Your task to perform on an android device: uninstall "Google Calendar" Image 0: 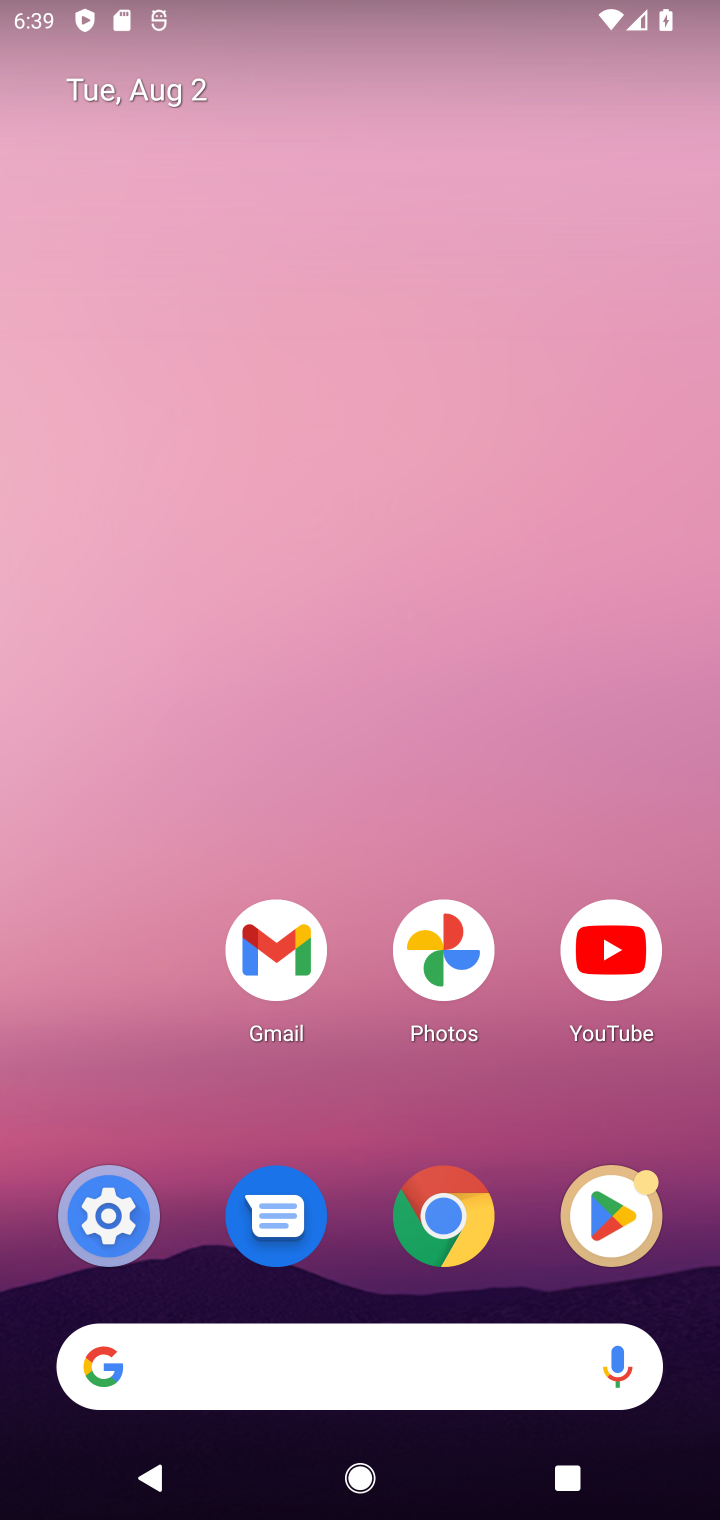
Step 0: drag from (403, 1363) to (710, 49)
Your task to perform on an android device: uninstall "Google Calendar" Image 1: 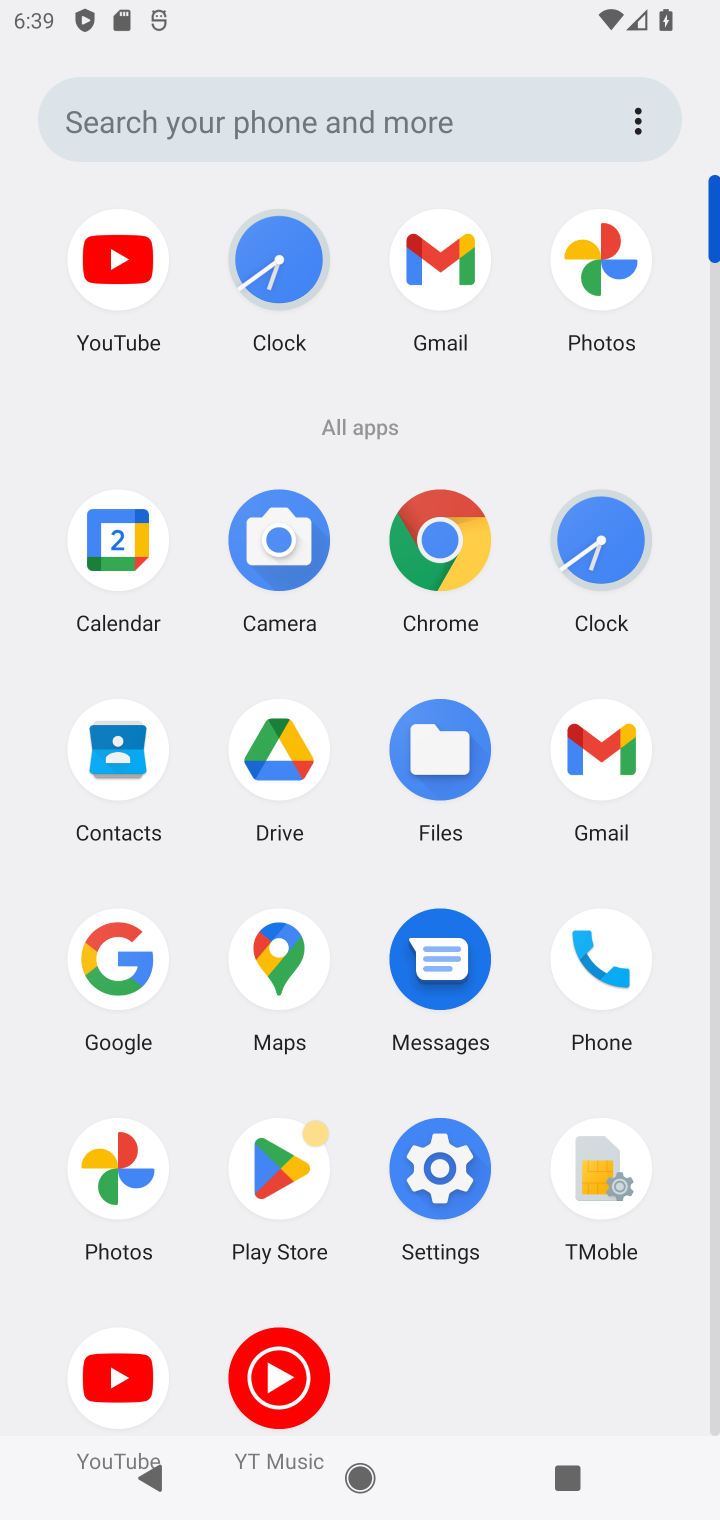
Step 1: click (283, 1163)
Your task to perform on an android device: uninstall "Google Calendar" Image 2: 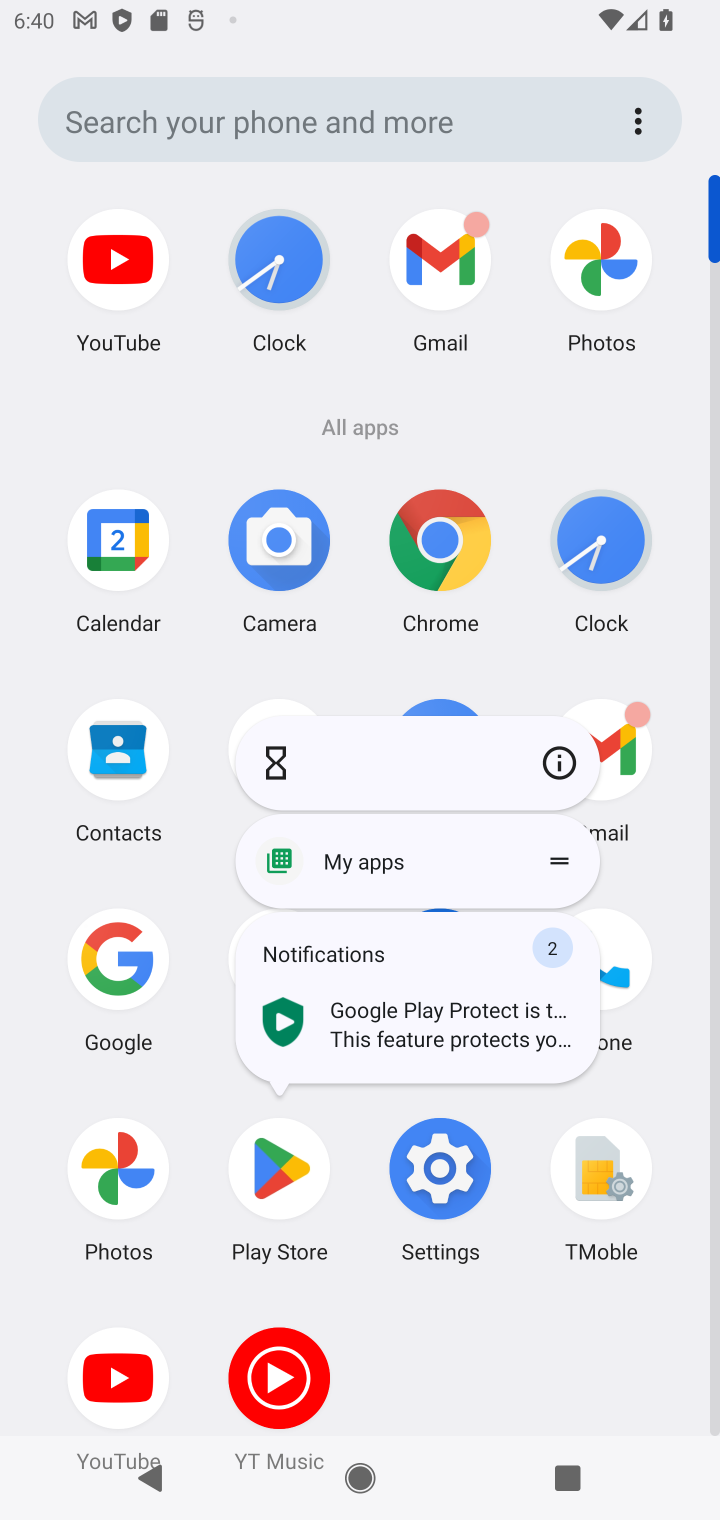
Step 2: click (276, 1180)
Your task to perform on an android device: uninstall "Google Calendar" Image 3: 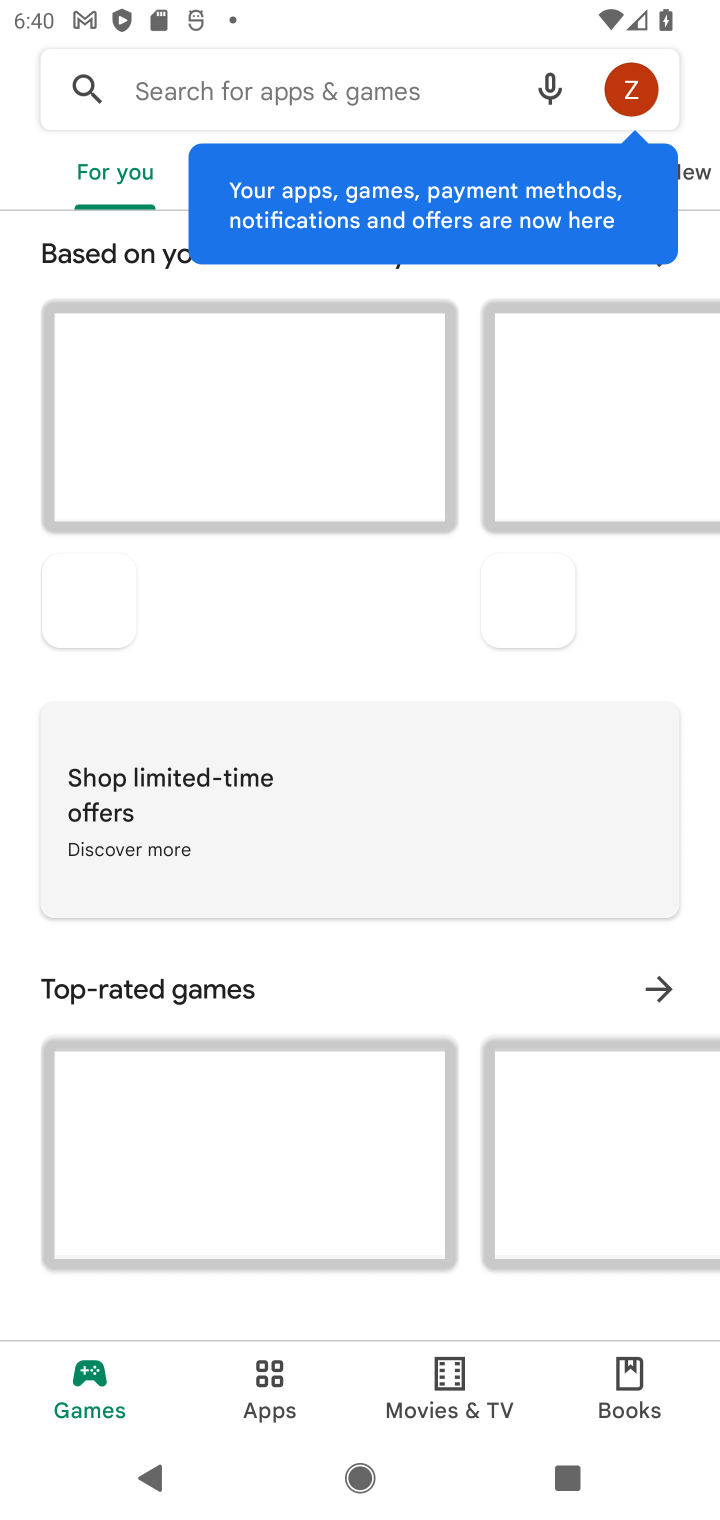
Step 3: click (467, 98)
Your task to perform on an android device: uninstall "Google Calendar" Image 4: 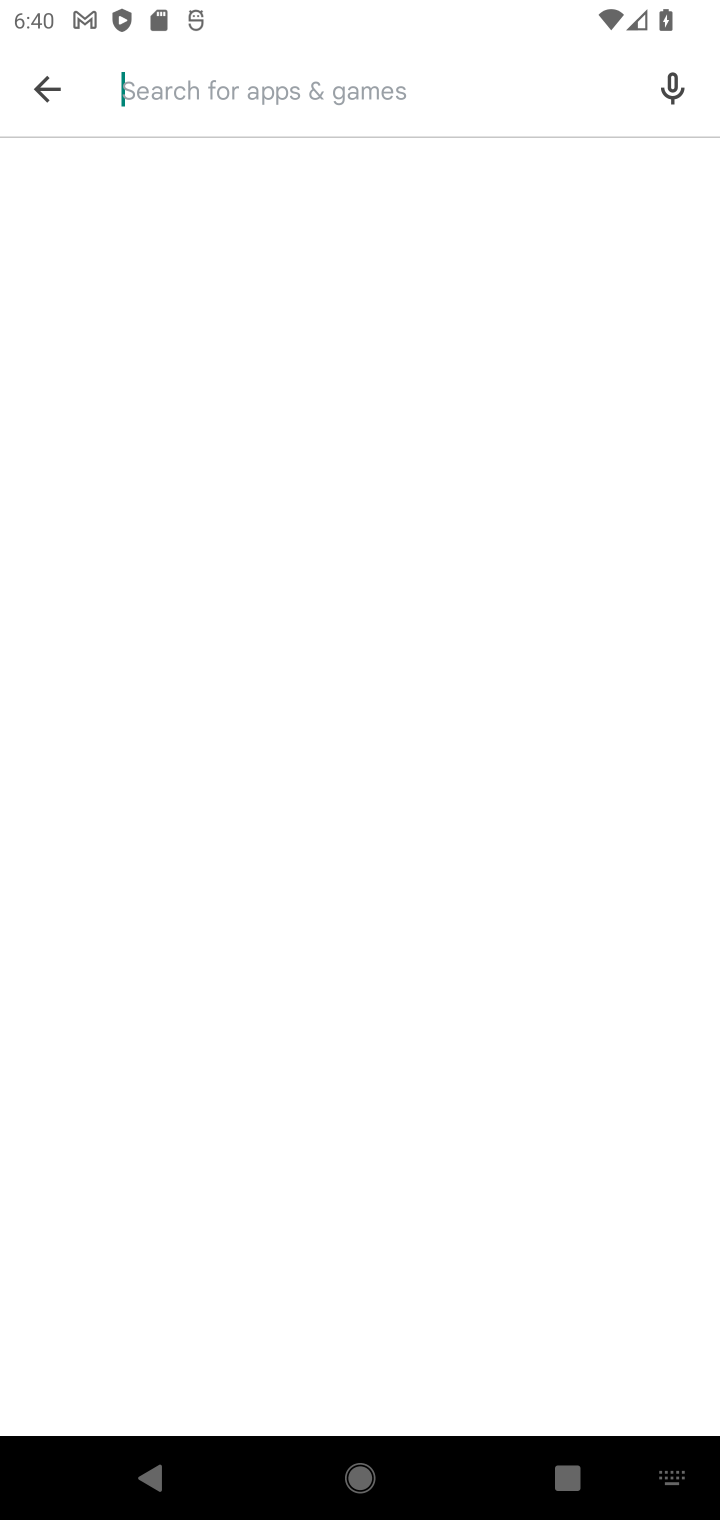
Step 4: type "Google Calendar"
Your task to perform on an android device: uninstall "Google Calendar" Image 5: 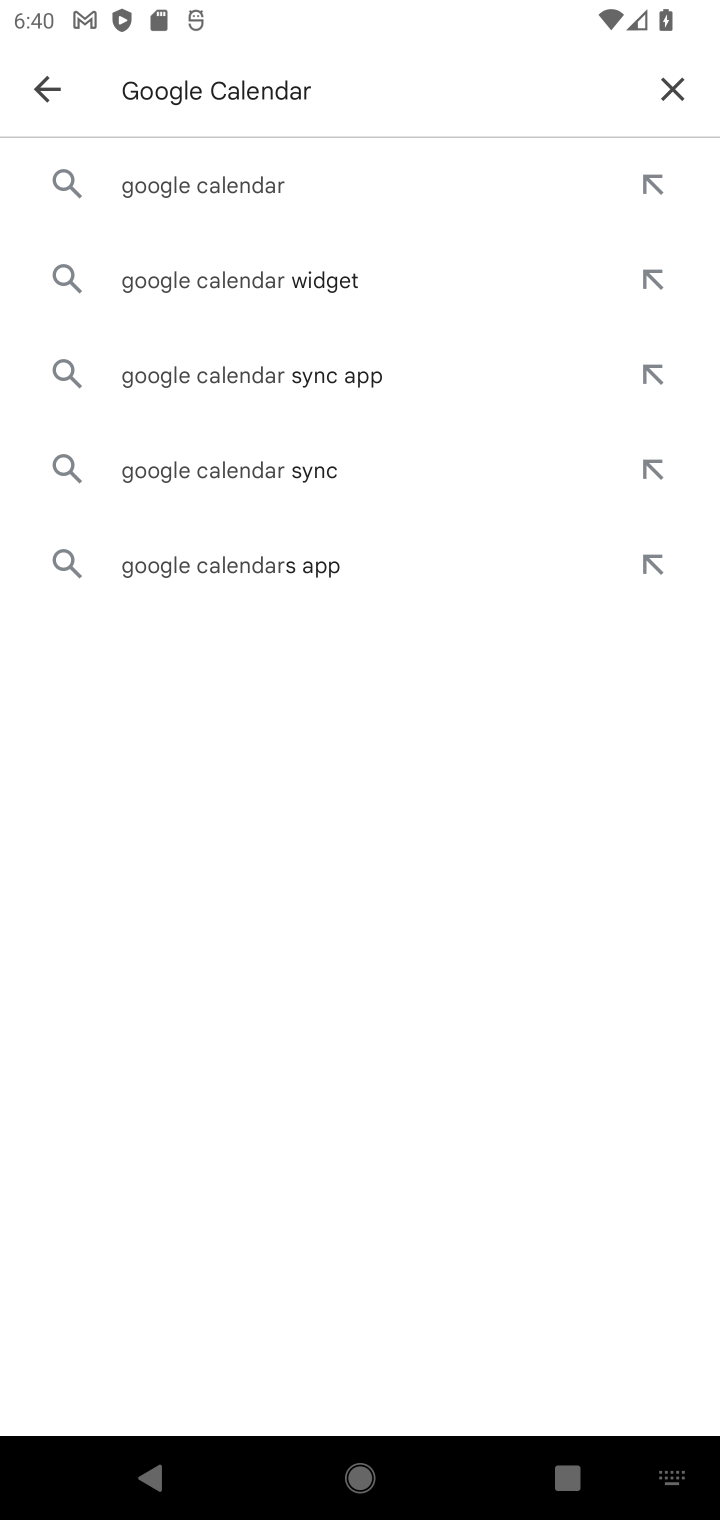
Step 5: click (251, 168)
Your task to perform on an android device: uninstall "Google Calendar" Image 6: 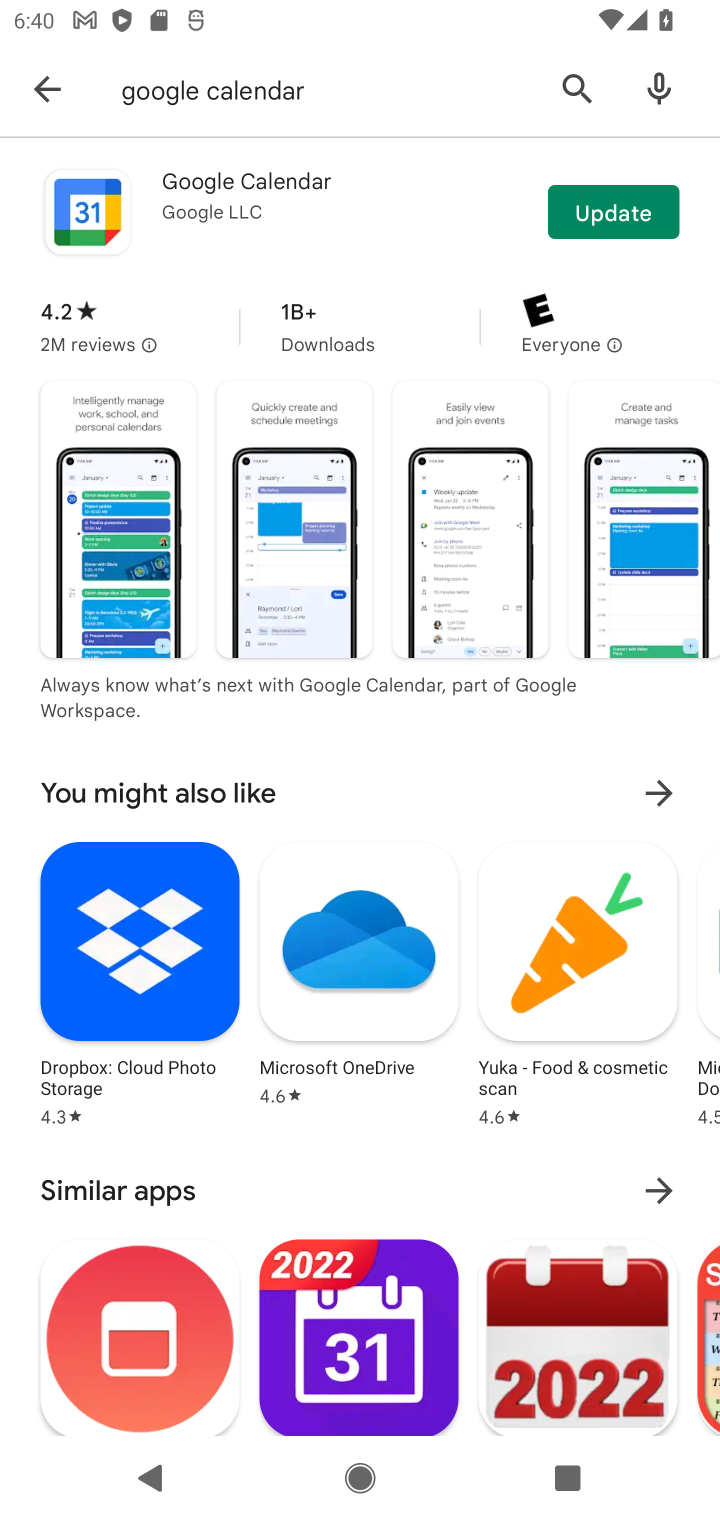
Step 6: click (260, 205)
Your task to perform on an android device: uninstall "Google Calendar" Image 7: 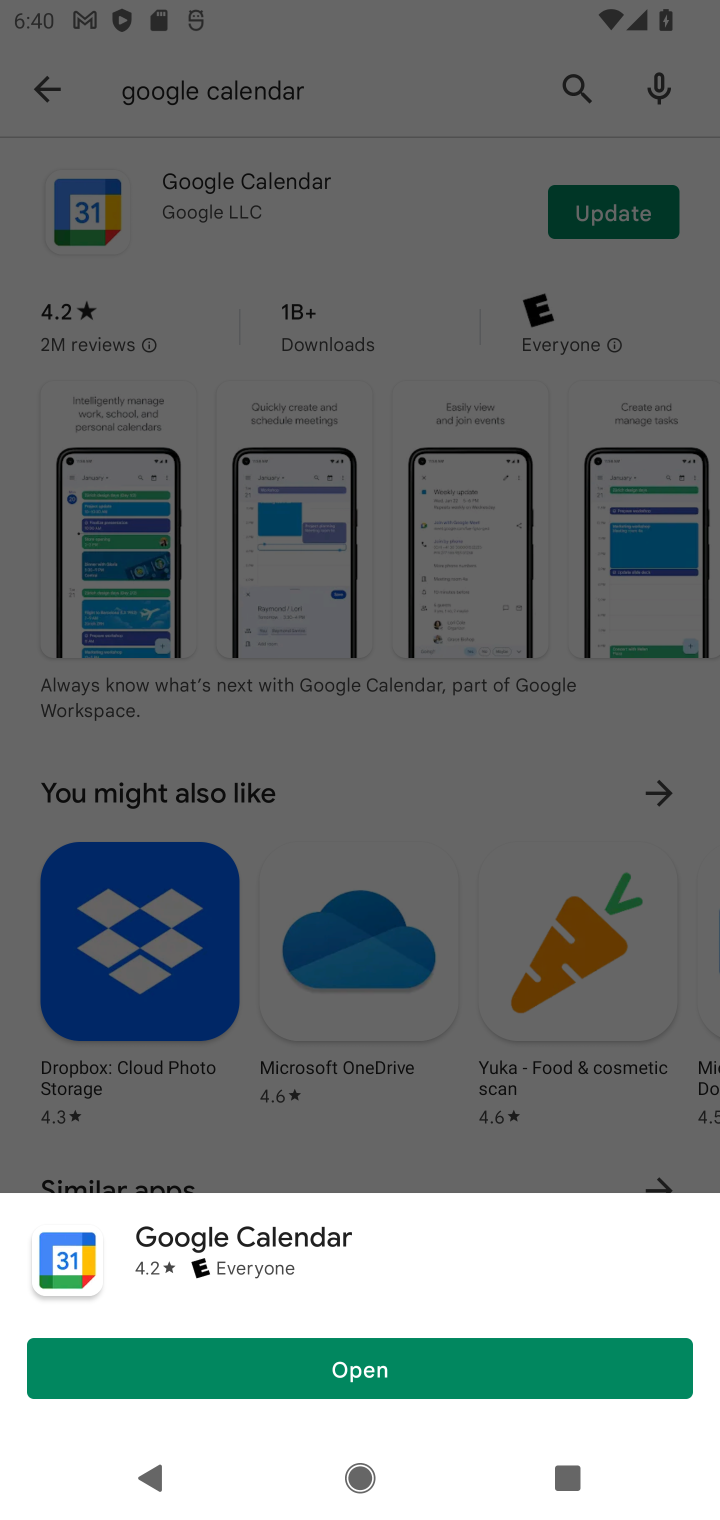
Step 7: click (210, 1237)
Your task to perform on an android device: uninstall "Google Calendar" Image 8: 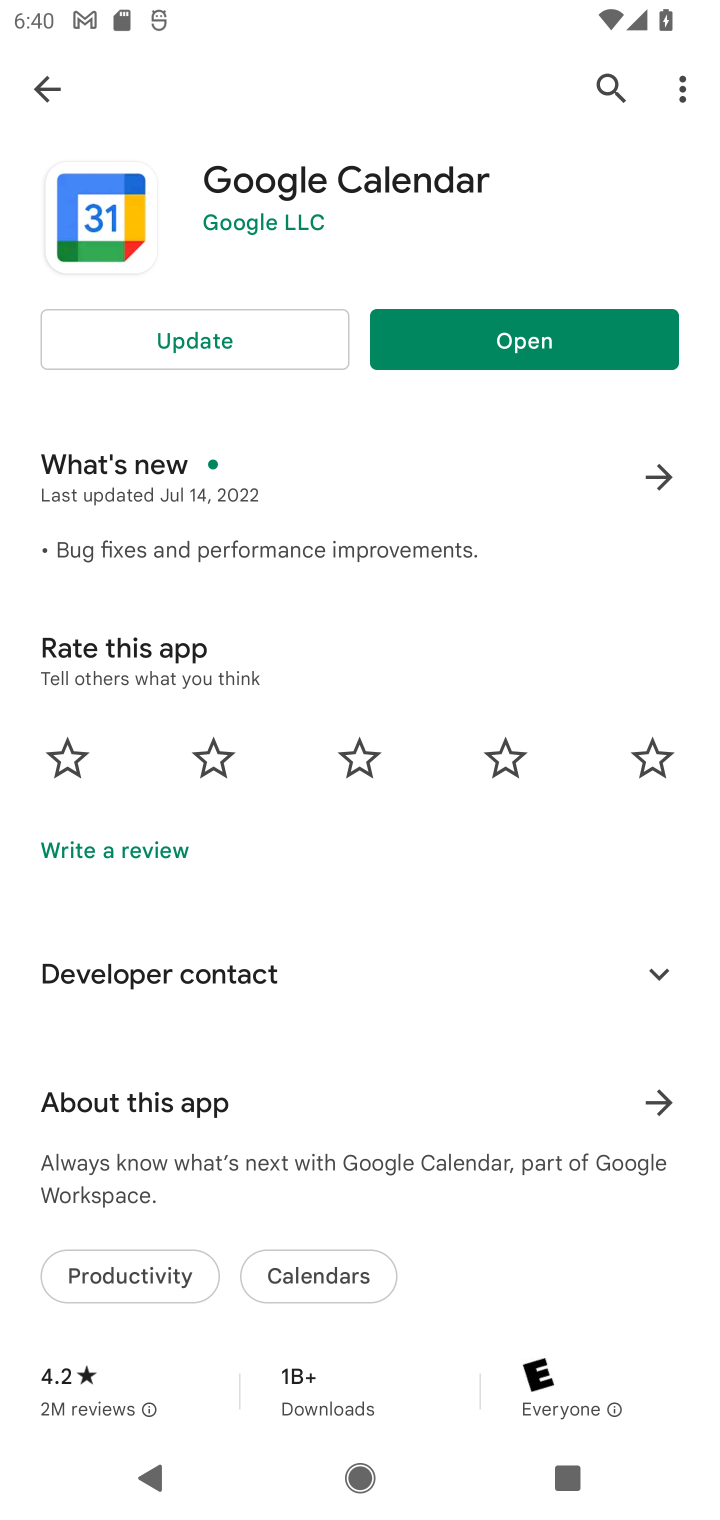
Step 8: task complete